Your task to perform on an android device: Is it going to rain this weekend? Image 0: 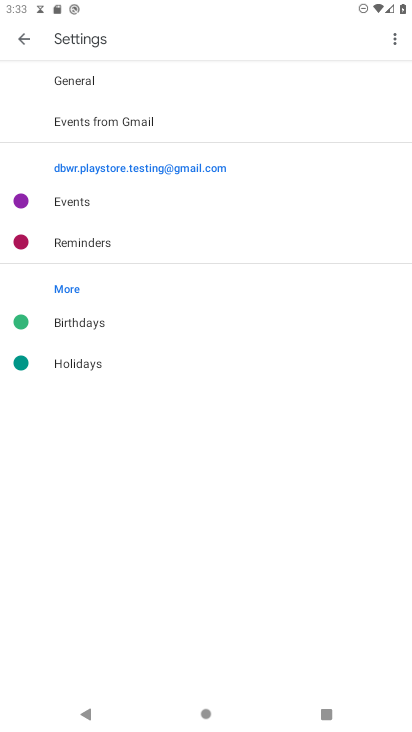
Step 0: press home button
Your task to perform on an android device: Is it going to rain this weekend? Image 1: 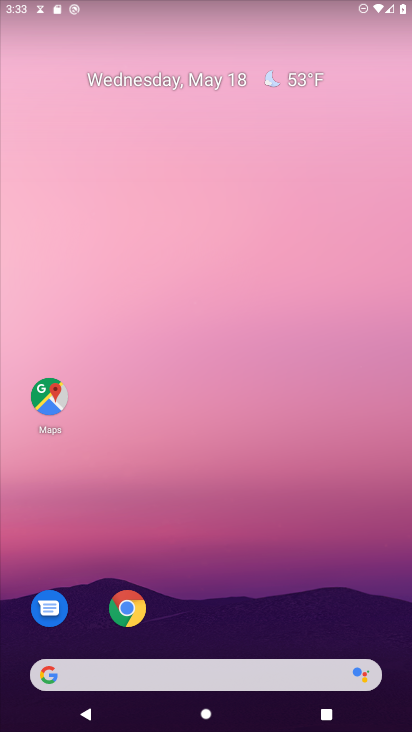
Step 1: drag from (173, 655) to (269, 235)
Your task to perform on an android device: Is it going to rain this weekend? Image 2: 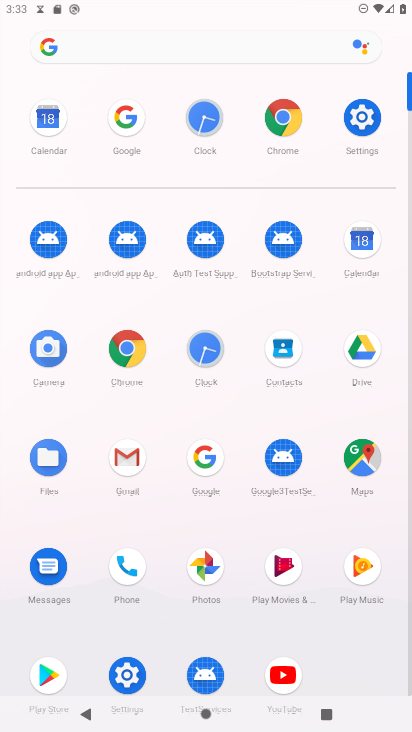
Step 2: click (211, 464)
Your task to perform on an android device: Is it going to rain this weekend? Image 3: 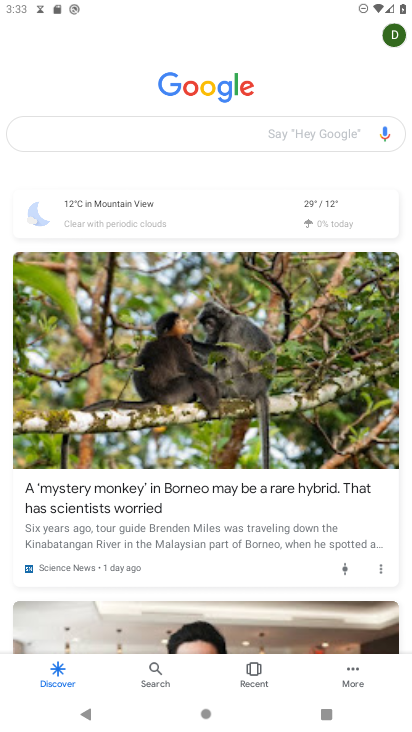
Step 3: click (170, 145)
Your task to perform on an android device: Is it going to rain this weekend? Image 4: 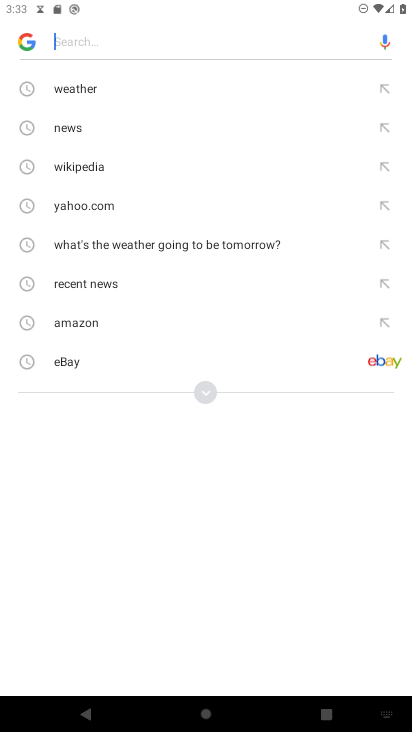
Step 4: click (212, 385)
Your task to perform on an android device: Is it going to rain this weekend? Image 5: 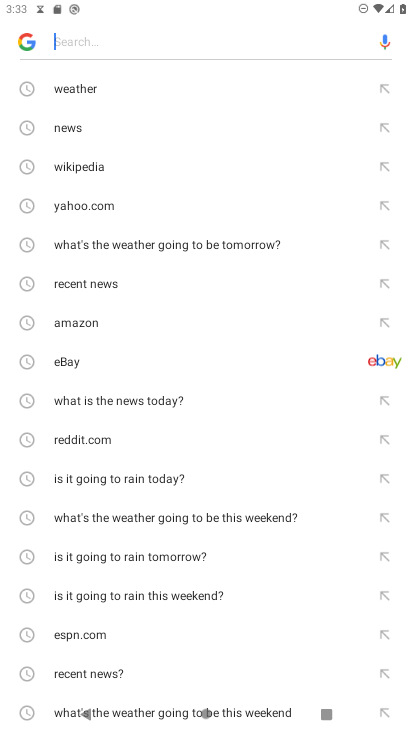
Step 5: click (101, 599)
Your task to perform on an android device: Is it going to rain this weekend? Image 6: 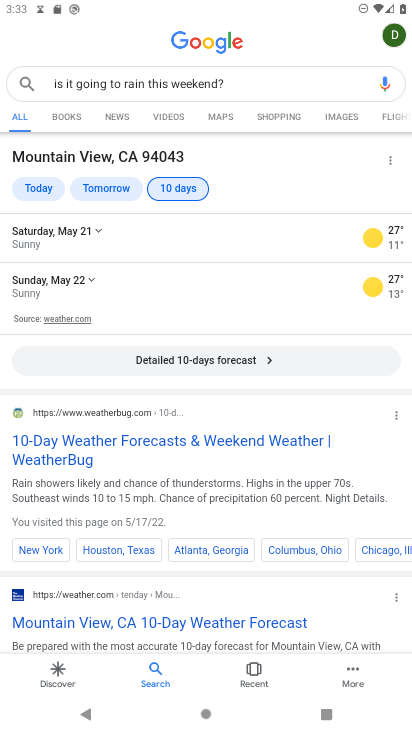
Step 6: click (196, 359)
Your task to perform on an android device: Is it going to rain this weekend? Image 7: 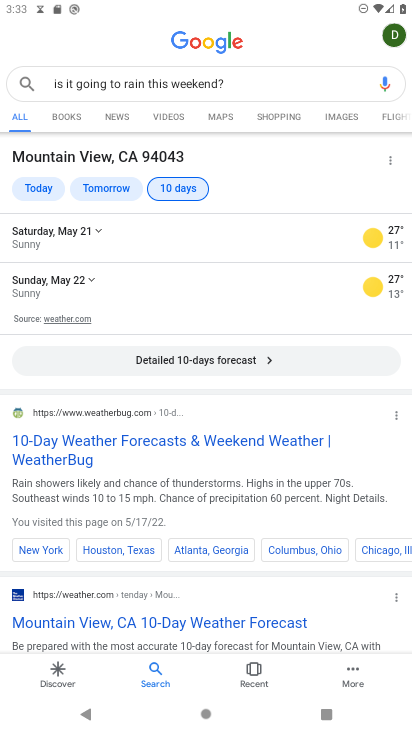
Step 7: click (196, 359)
Your task to perform on an android device: Is it going to rain this weekend? Image 8: 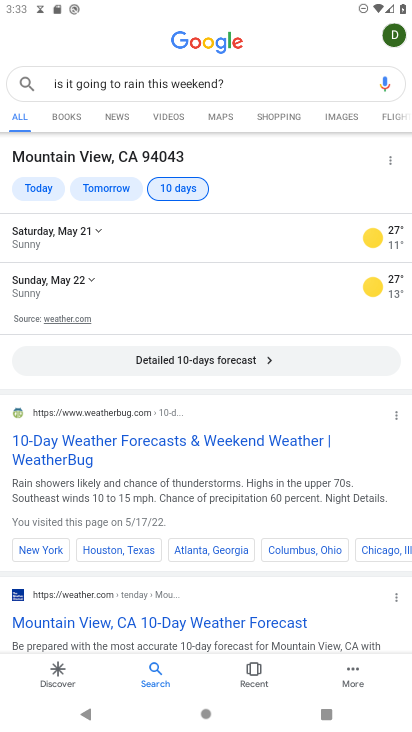
Step 8: click (267, 356)
Your task to perform on an android device: Is it going to rain this weekend? Image 9: 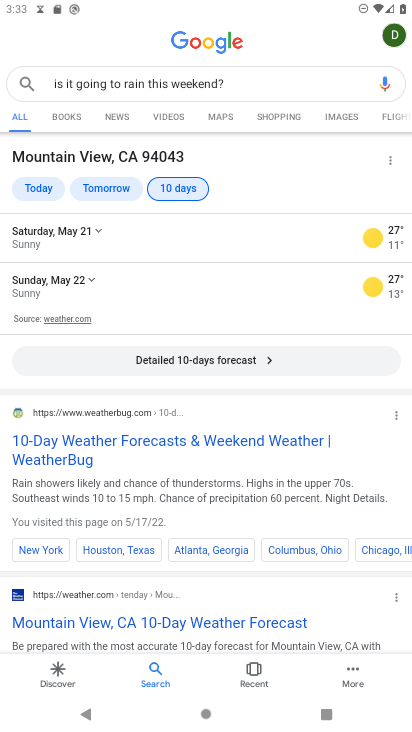
Step 9: click (217, 358)
Your task to perform on an android device: Is it going to rain this weekend? Image 10: 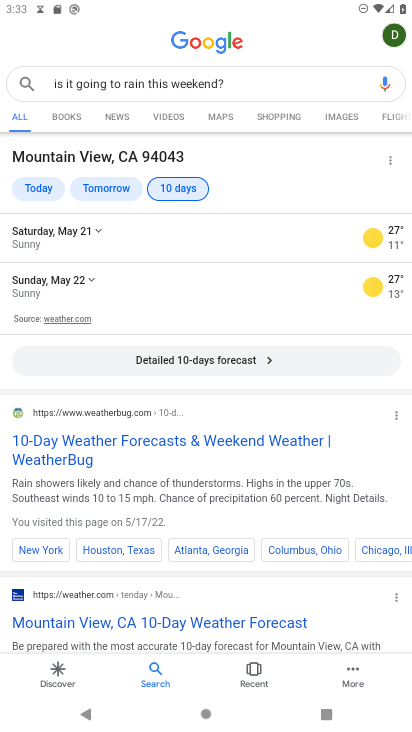
Step 10: click (179, 425)
Your task to perform on an android device: Is it going to rain this weekend? Image 11: 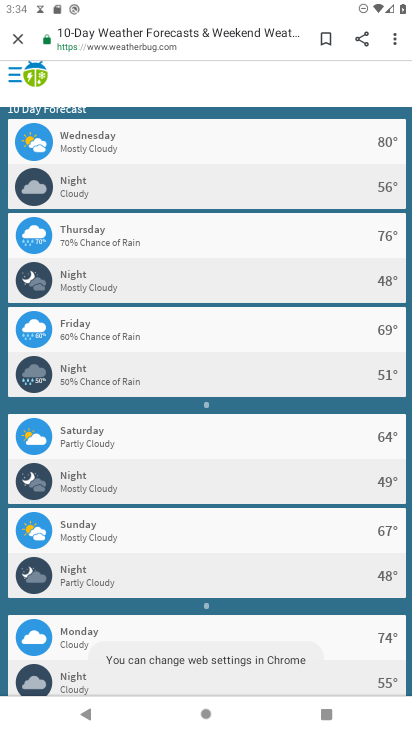
Step 11: task complete